Your task to perform on an android device: set an alarm Image 0: 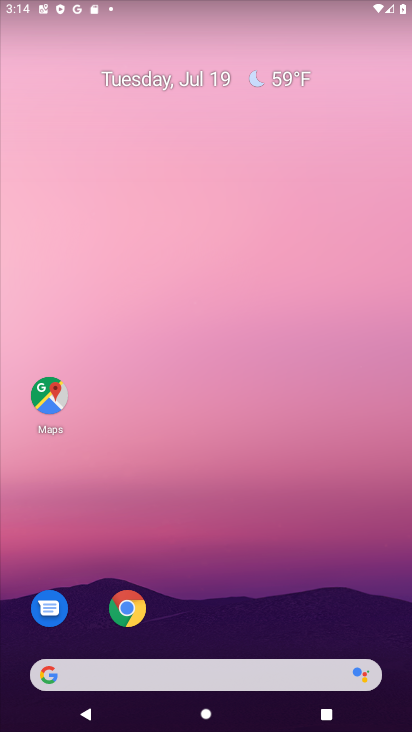
Step 0: drag from (330, 624) to (244, 119)
Your task to perform on an android device: set an alarm Image 1: 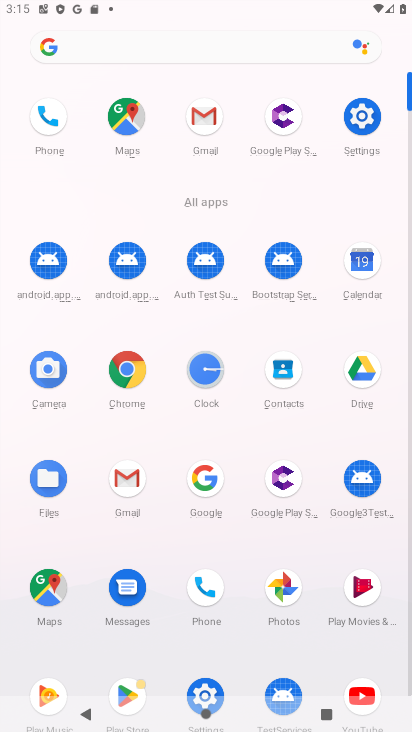
Step 1: click (203, 371)
Your task to perform on an android device: set an alarm Image 2: 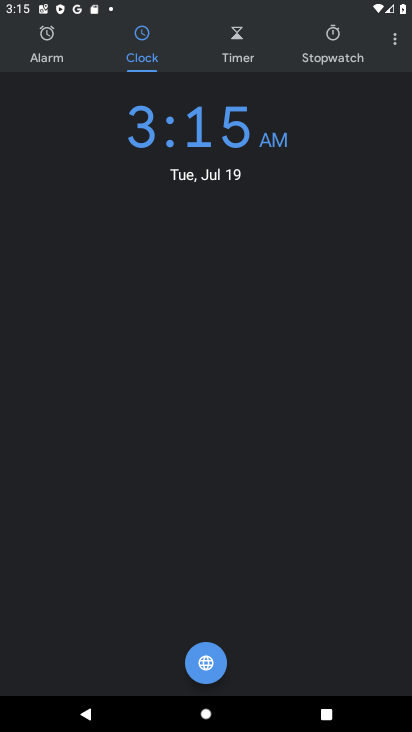
Step 2: click (41, 58)
Your task to perform on an android device: set an alarm Image 3: 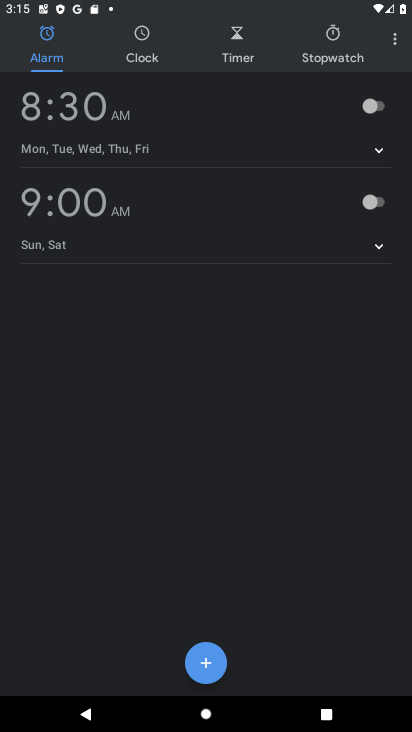
Step 3: click (209, 658)
Your task to perform on an android device: set an alarm Image 4: 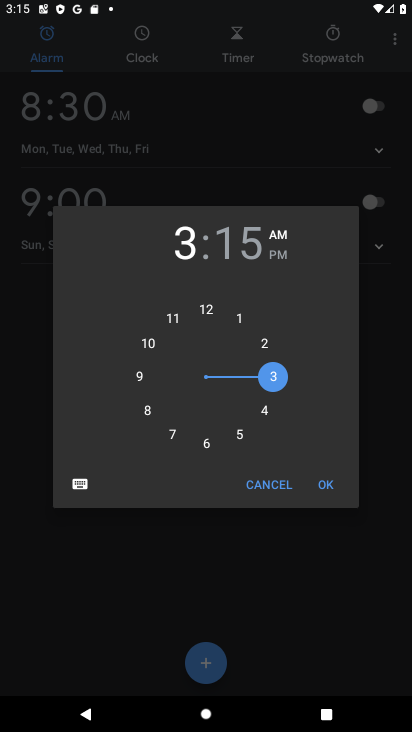
Step 4: click (324, 486)
Your task to perform on an android device: set an alarm Image 5: 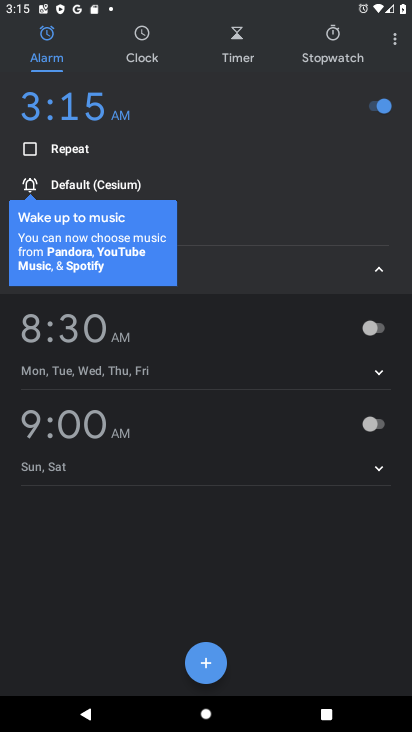
Step 5: task complete